Your task to perform on an android device: Open Google Chrome and open the bookmarks view Image 0: 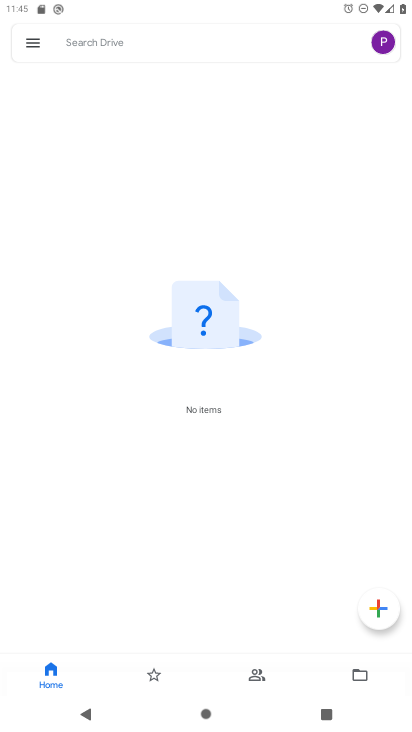
Step 0: press home button
Your task to perform on an android device: Open Google Chrome and open the bookmarks view Image 1: 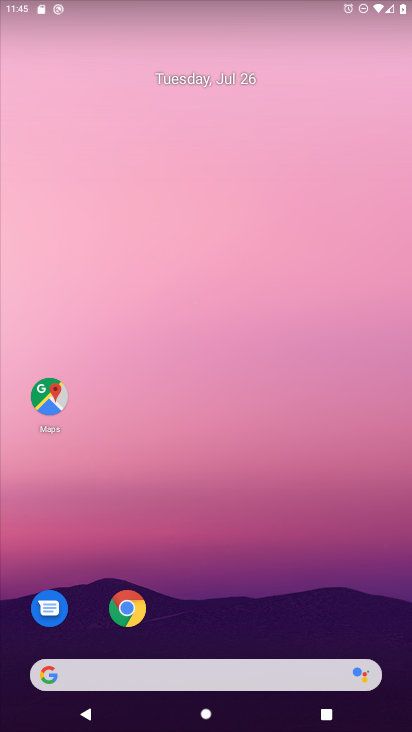
Step 1: drag from (247, 587) to (190, 75)
Your task to perform on an android device: Open Google Chrome and open the bookmarks view Image 2: 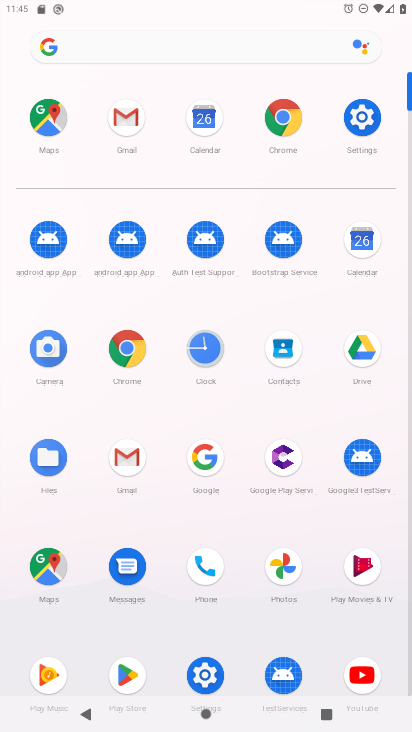
Step 2: click (280, 117)
Your task to perform on an android device: Open Google Chrome and open the bookmarks view Image 3: 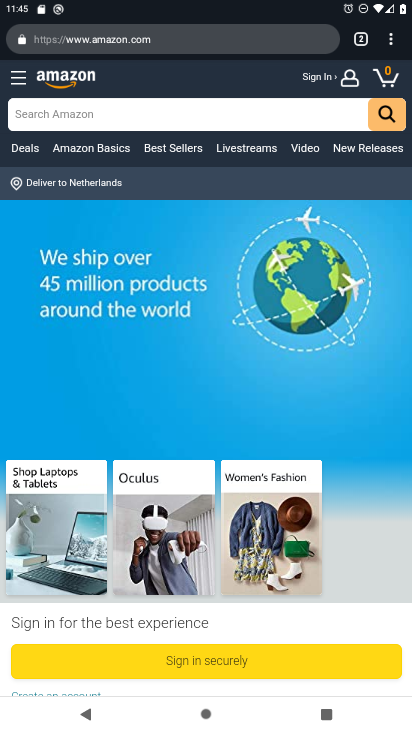
Step 3: task complete